Your task to perform on an android device: check android version Image 0: 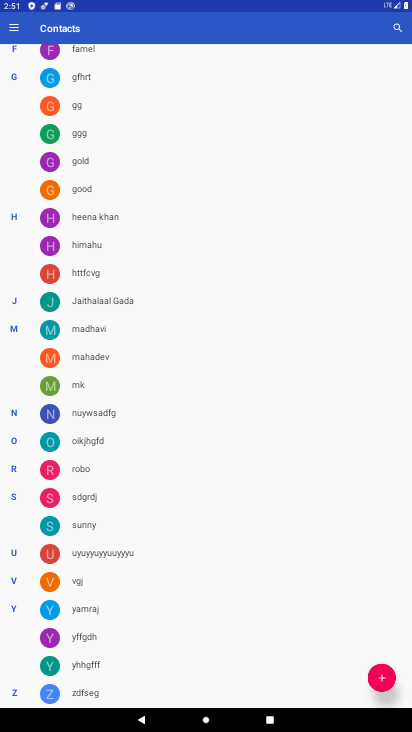
Step 0: press home button
Your task to perform on an android device: check android version Image 1: 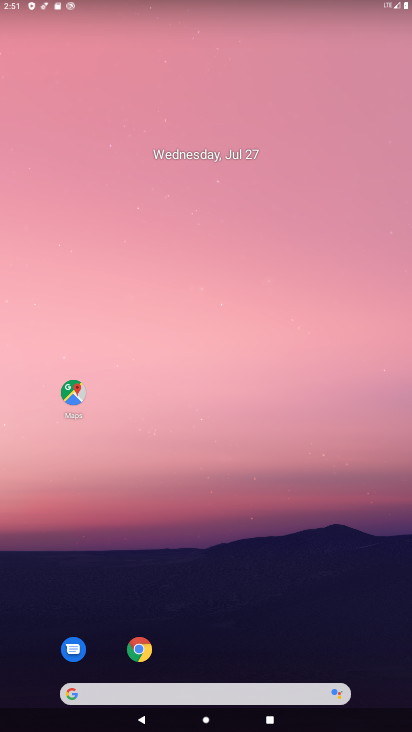
Step 1: drag from (313, 623) to (326, 94)
Your task to perform on an android device: check android version Image 2: 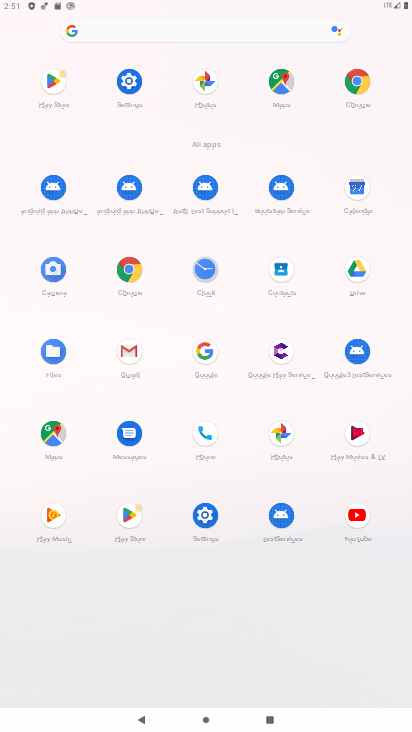
Step 2: click (201, 516)
Your task to perform on an android device: check android version Image 3: 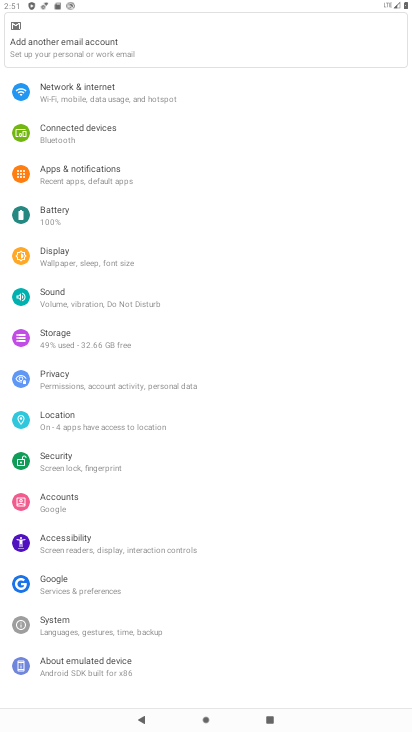
Step 3: click (67, 664)
Your task to perform on an android device: check android version Image 4: 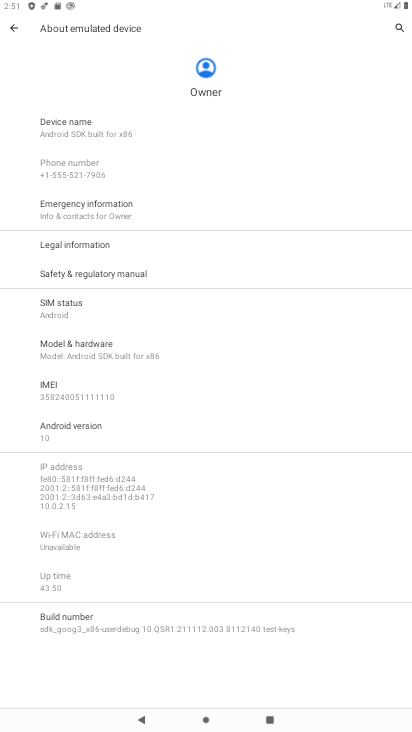
Step 4: click (94, 432)
Your task to perform on an android device: check android version Image 5: 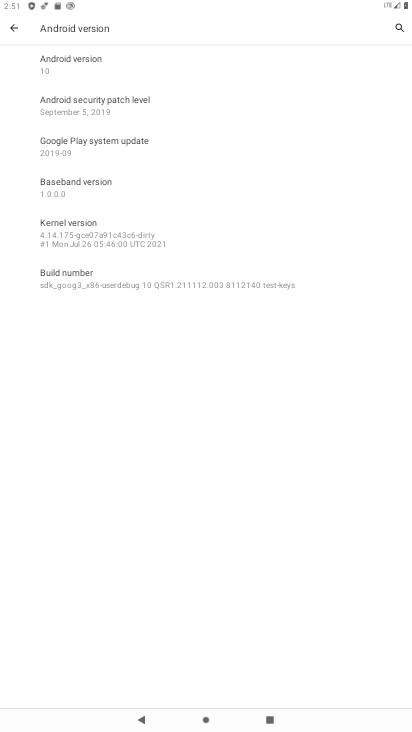
Step 5: task complete